Your task to perform on an android device: open app "Airtel Thanks" Image 0: 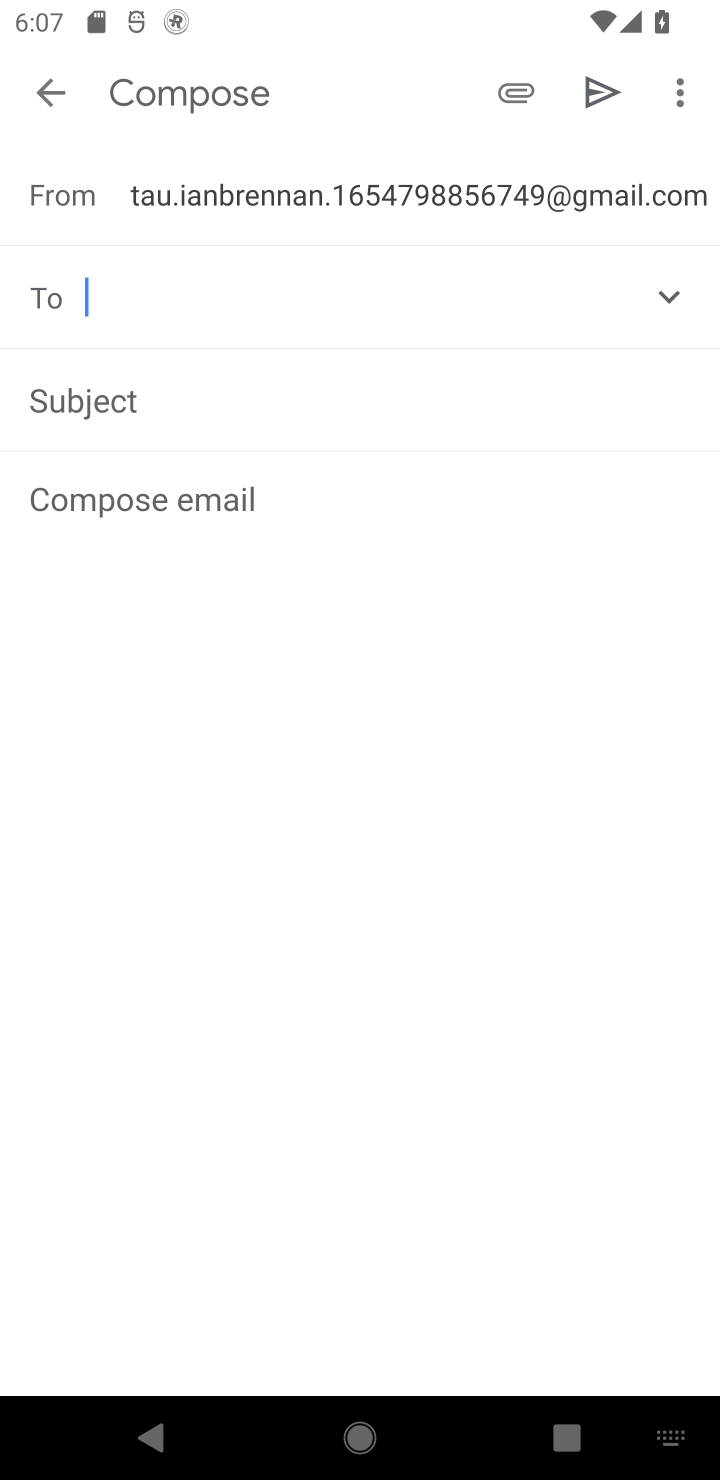
Step 0: press home button
Your task to perform on an android device: open app "Airtel Thanks" Image 1: 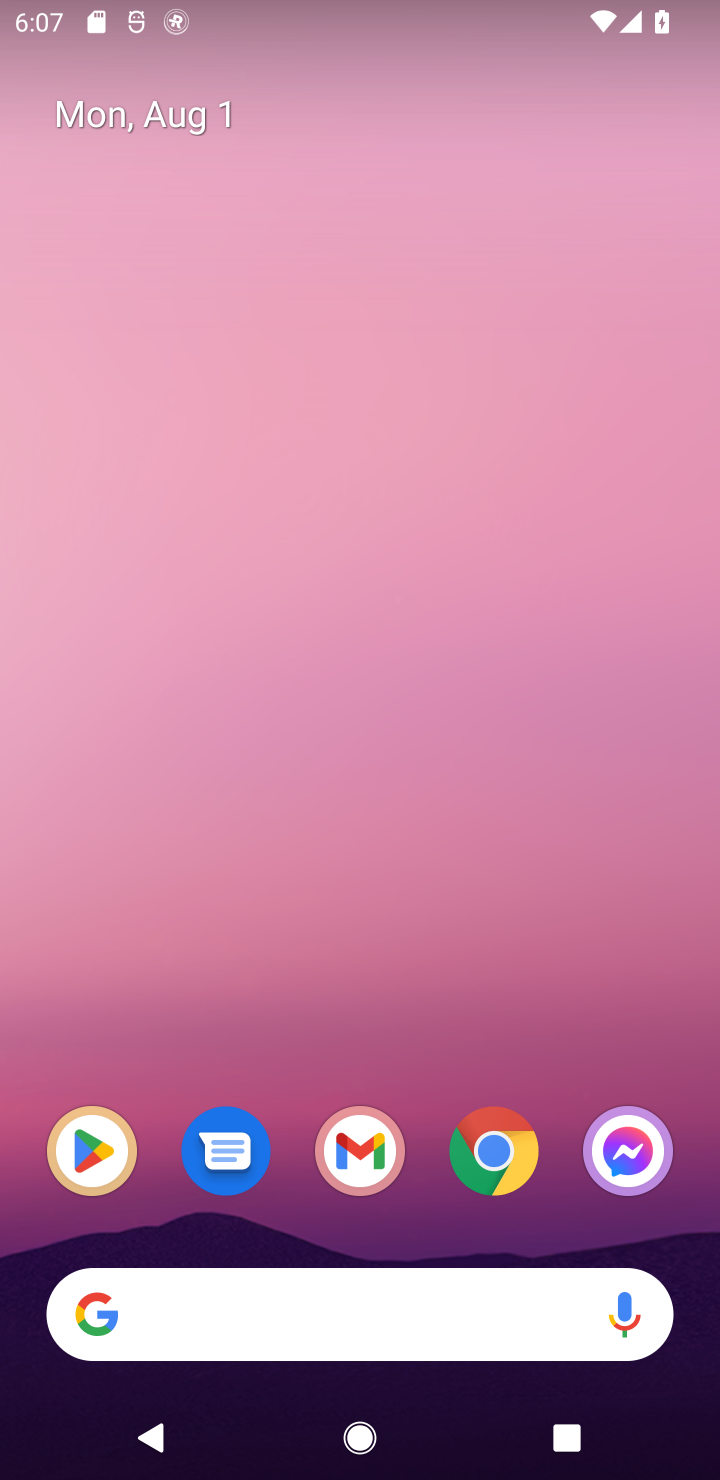
Step 1: click (84, 1130)
Your task to perform on an android device: open app "Airtel Thanks" Image 2: 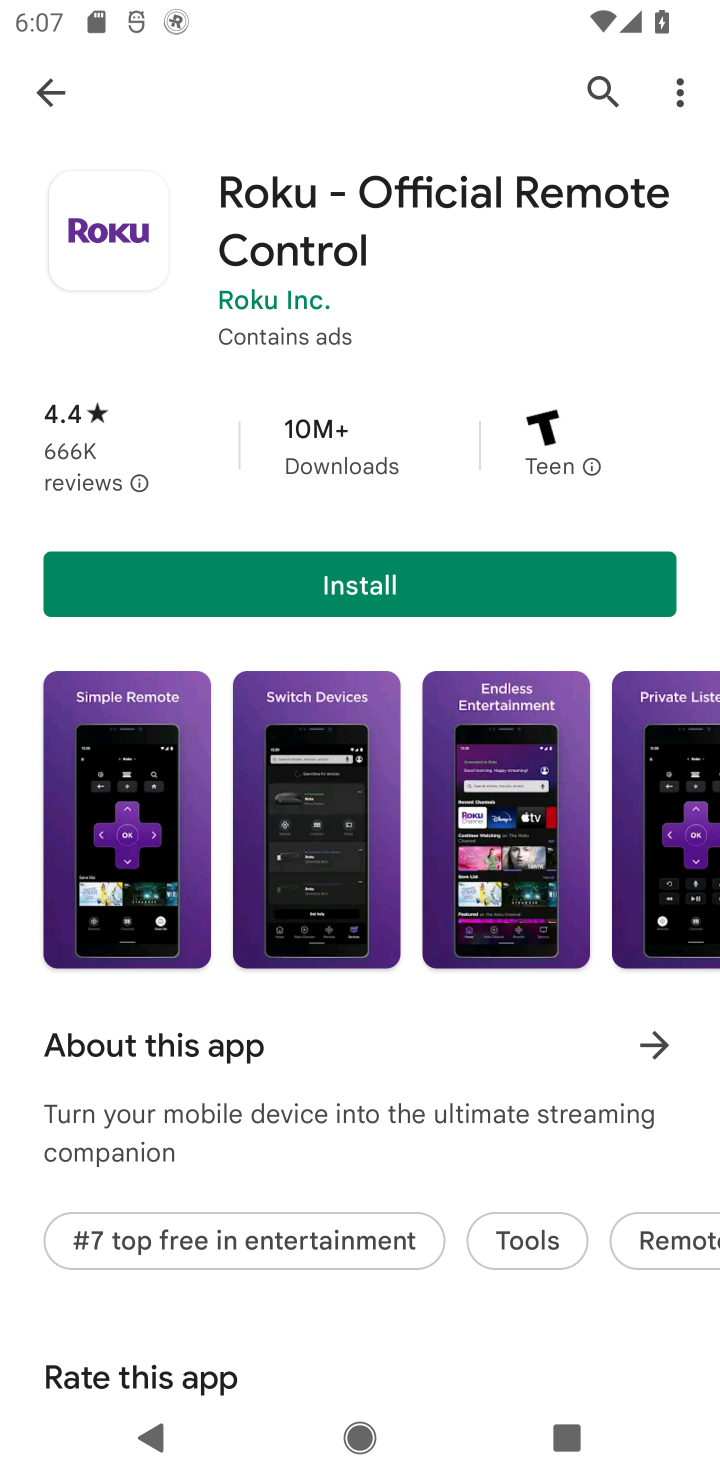
Step 2: click (615, 87)
Your task to perform on an android device: open app "Airtel Thanks" Image 3: 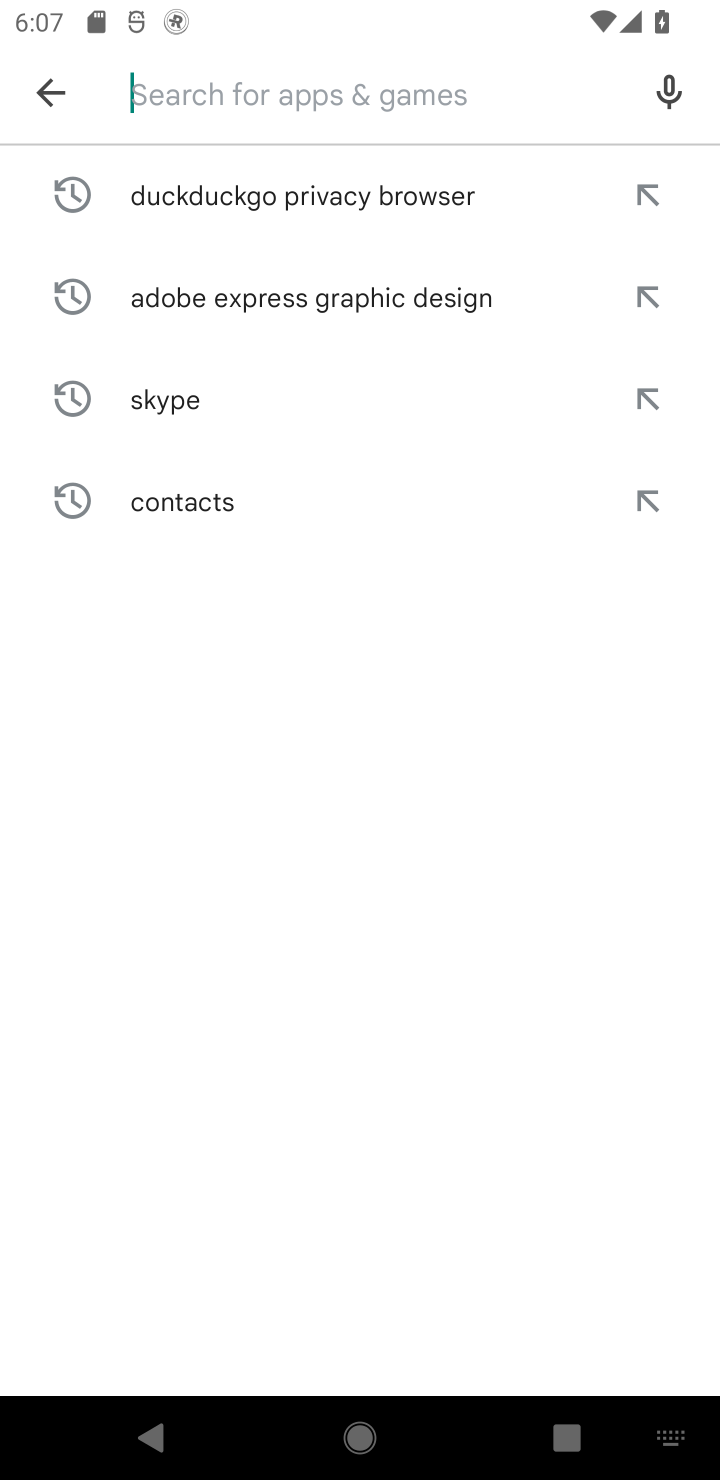
Step 3: click (479, 102)
Your task to perform on an android device: open app "Airtel Thanks" Image 4: 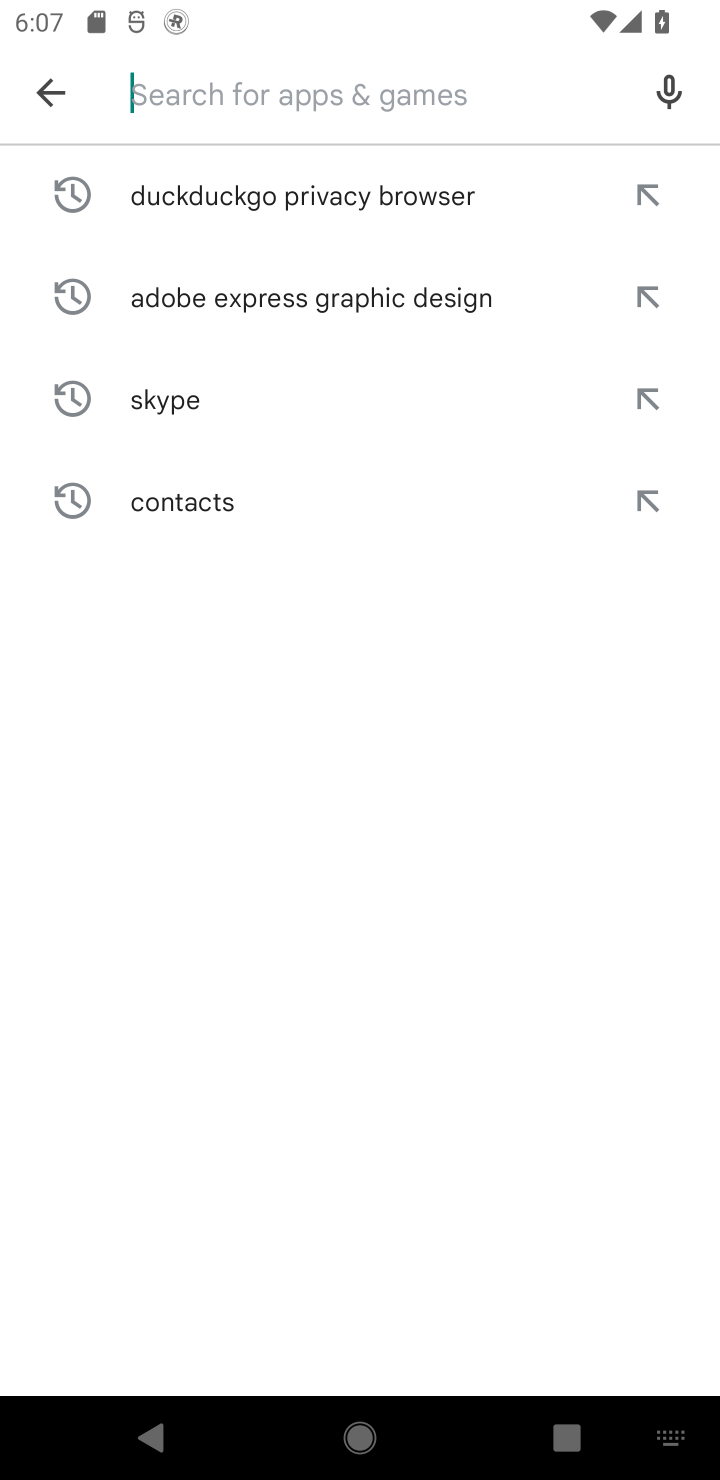
Step 4: type "Airtel Thanks"
Your task to perform on an android device: open app "Airtel Thanks" Image 5: 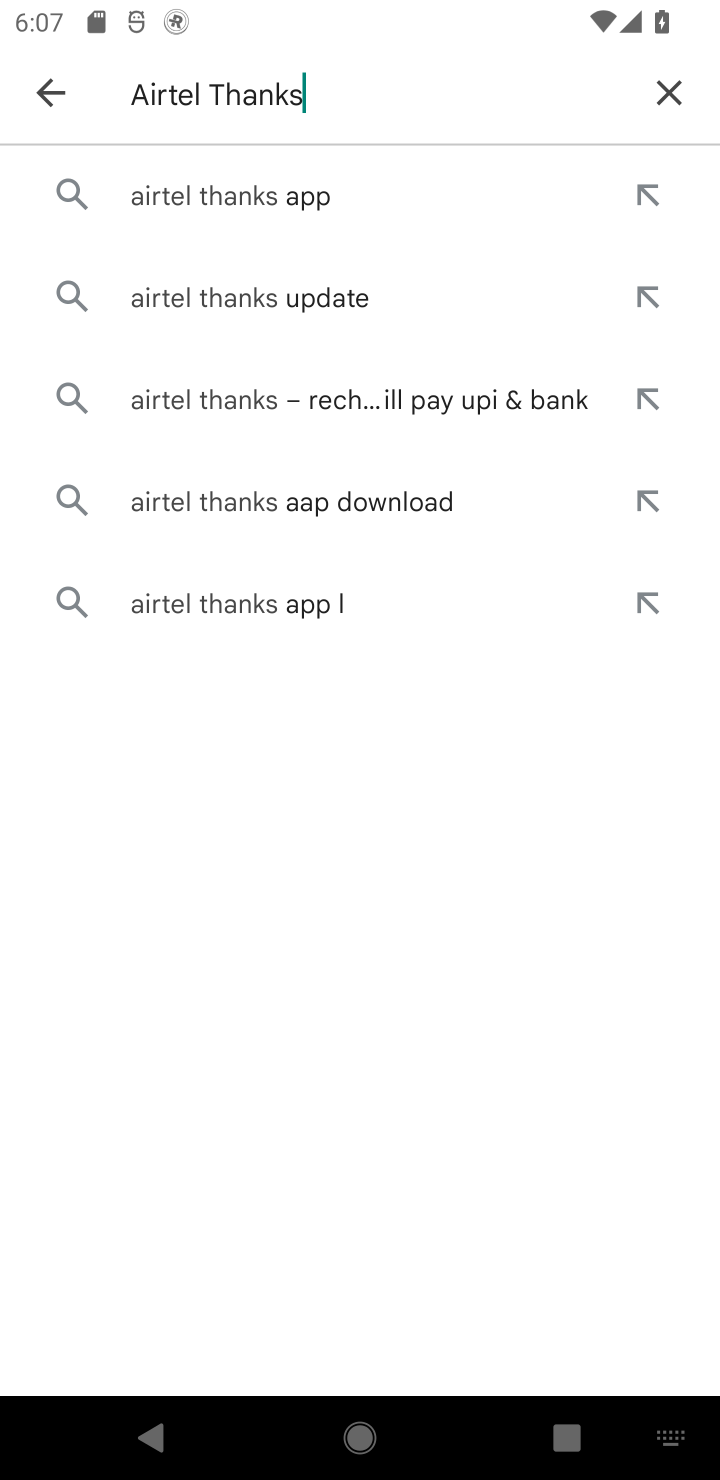
Step 5: click (194, 196)
Your task to perform on an android device: open app "Airtel Thanks" Image 6: 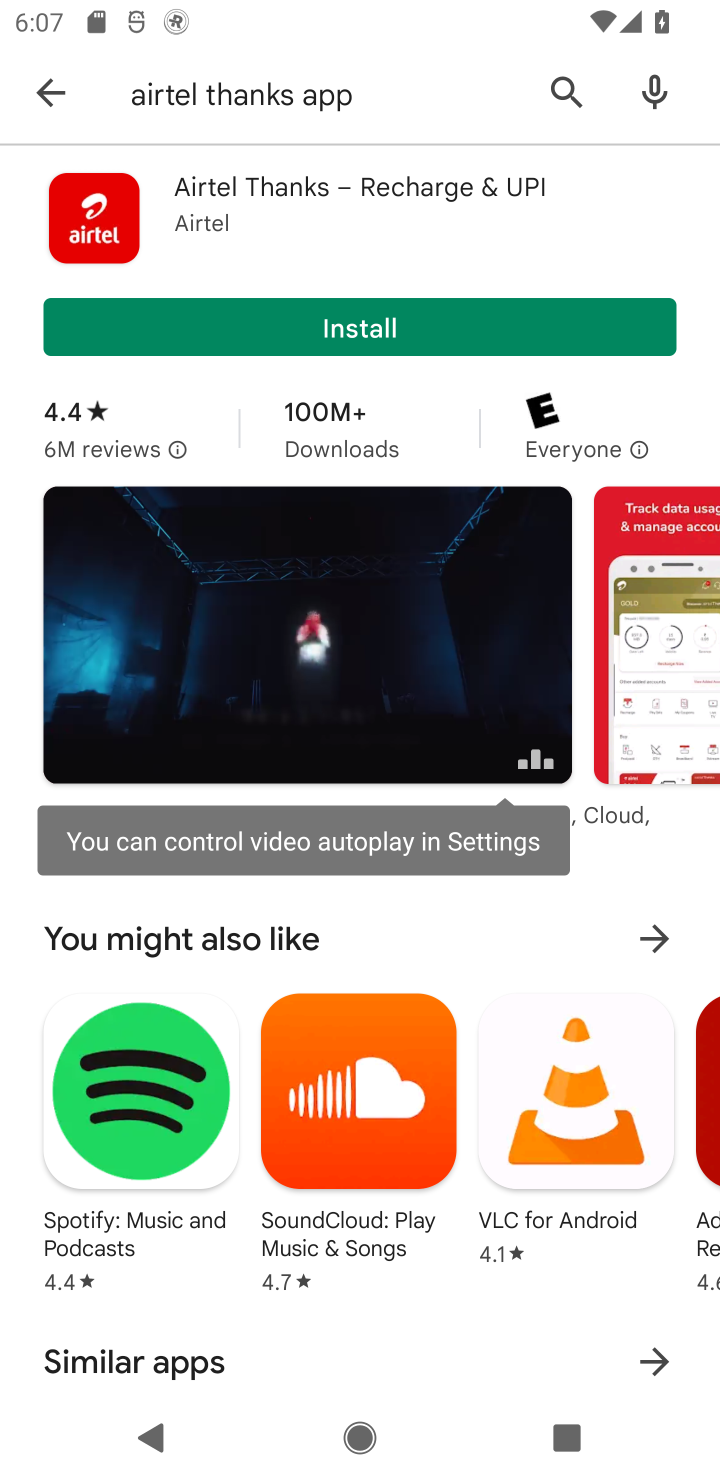
Step 6: task complete